Your task to perform on an android device: turn off location history Image 0: 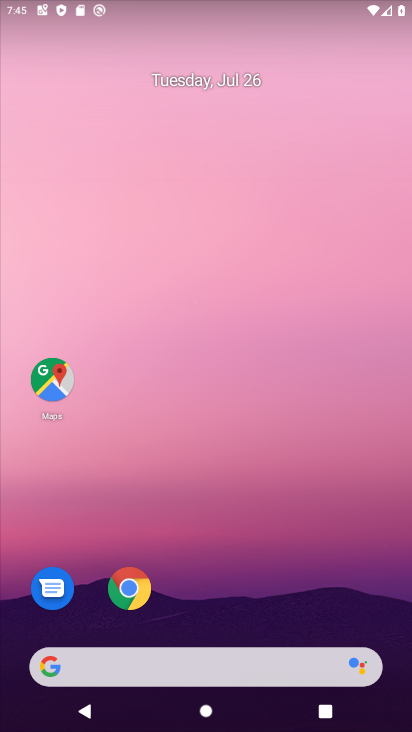
Step 0: drag from (202, 562) to (234, 250)
Your task to perform on an android device: turn off location history Image 1: 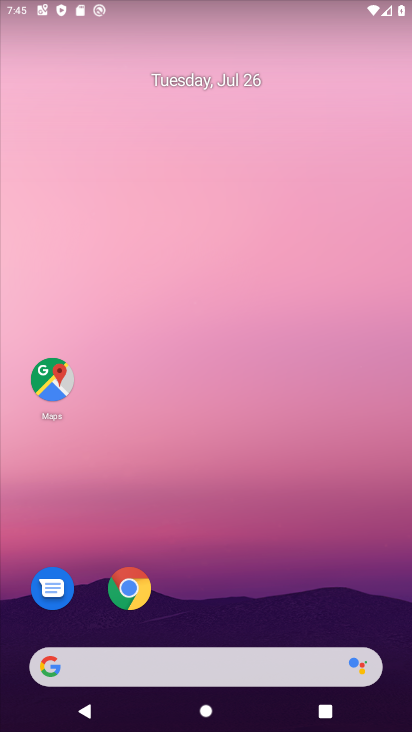
Step 1: drag from (247, 464) to (287, 84)
Your task to perform on an android device: turn off location history Image 2: 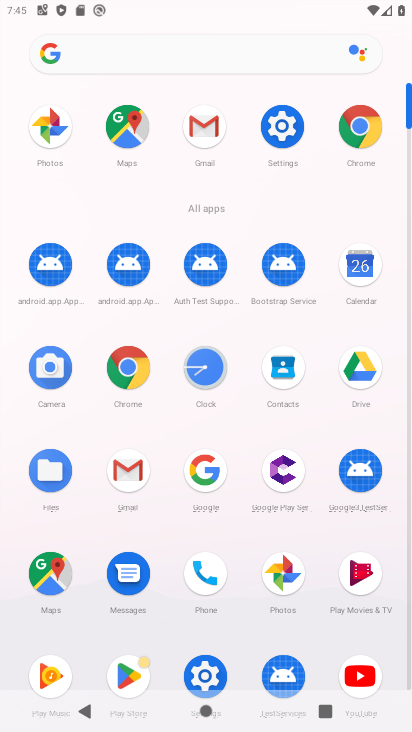
Step 2: click (281, 129)
Your task to perform on an android device: turn off location history Image 3: 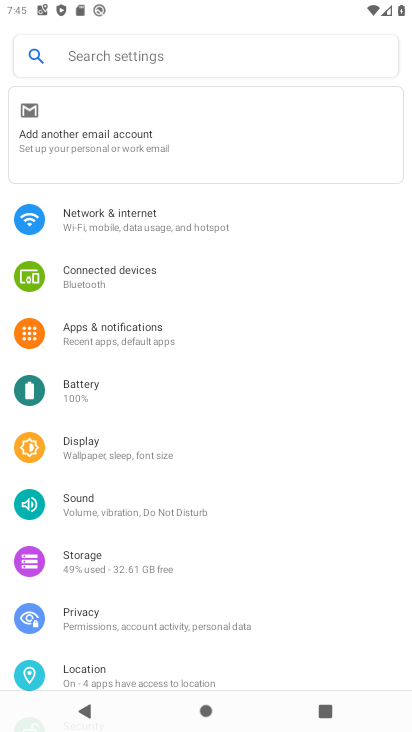
Step 3: click (87, 673)
Your task to perform on an android device: turn off location history Image 4: 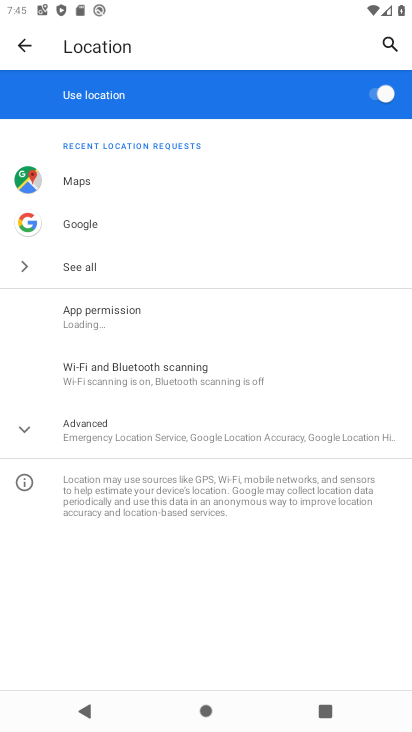
Step 4: click (380, 93)
Your task to perform on an android device: turn off location history Image 5: 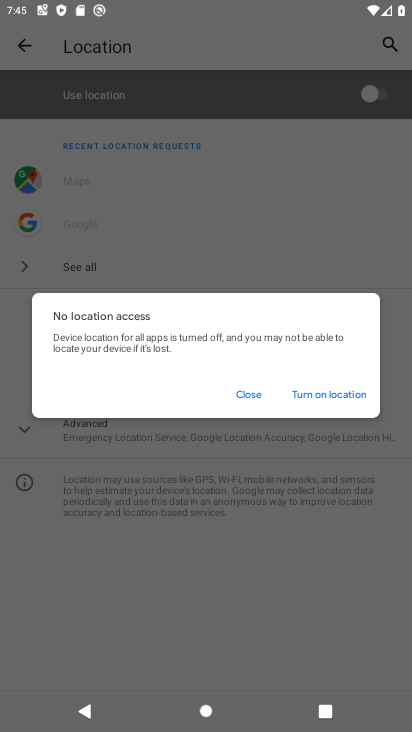
Step 5: task complete